Your task to perform on an android device: Turn on the flashlight Image 0: 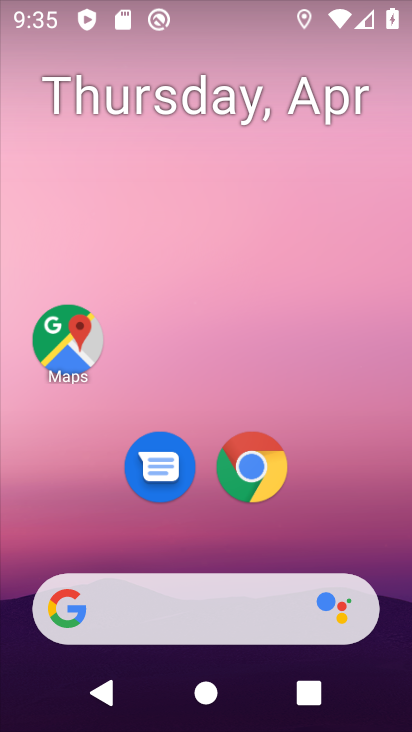
Step 0: drag from (331, 6) to (315, 713)
Your task to perform on an android device: Turn on the flashlight Image 1: 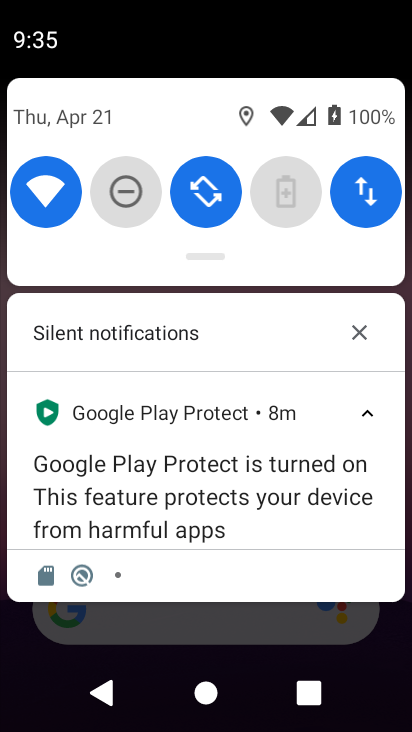
Step 1: drag from (244, 227) to (172, 633)
Your task to perform on an android device: Turn on the flashlight Image 2: 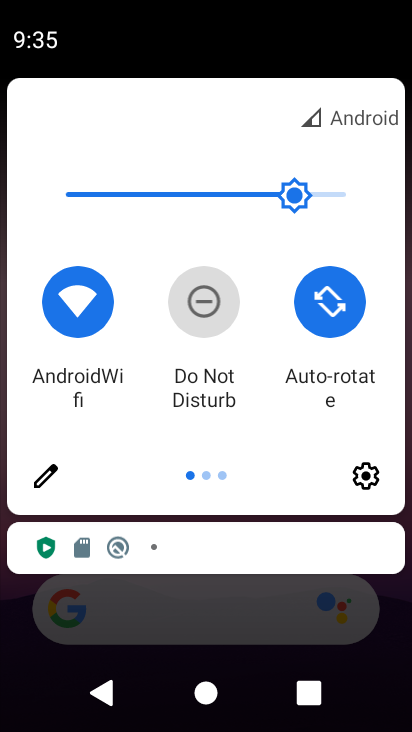
Step 2: drag from (390, 341) to (45, 299)
Your task to perform on an android device: Turn on the flashlight Image 3: 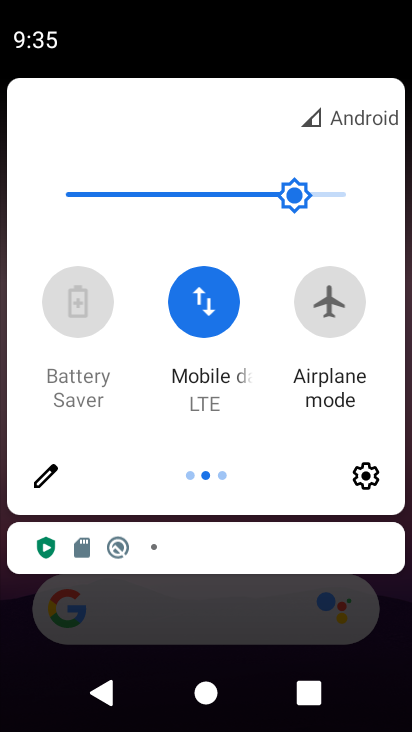
Step 3: drag from (385, 351) to (19, 349)
Your task to perform on an android device: Turn on the flashlight Image 4: 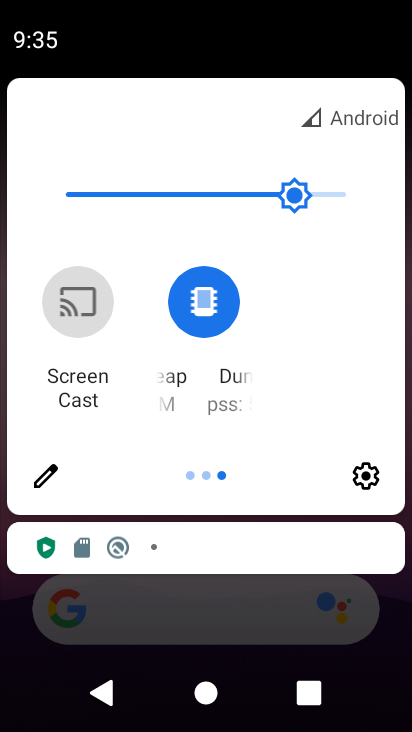
Step 4: click (50, 479)
Your task to perform on an android device: Turn on the flashlight Image 5: 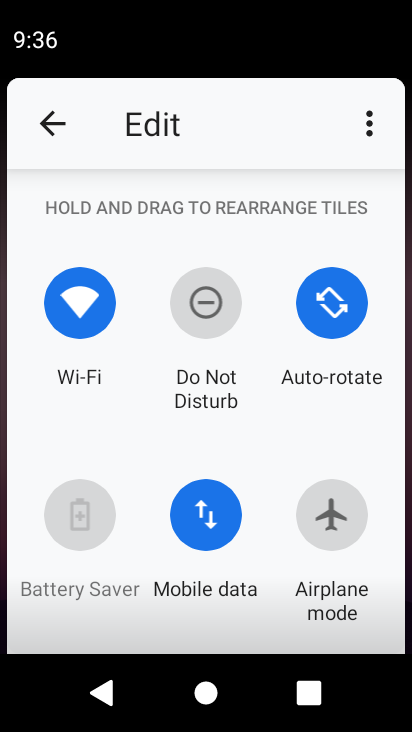
Step 5: task complete